Your task to perform on an android device: turn off picture-in-picture Image 0: 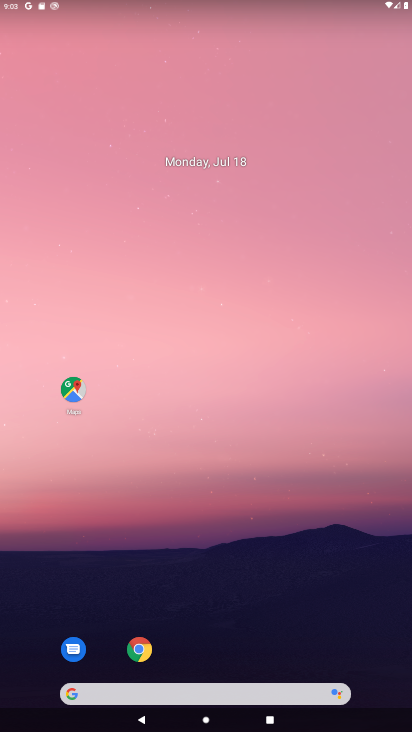
Step 0: click (135, 643)
Your task to perform on an android device: turn off picture-in-picture Image 1: 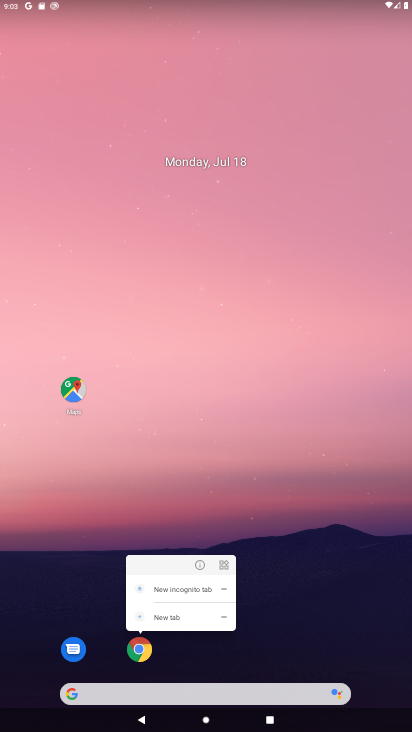
Step 1: click (202, 564)
Your task to perform on an android device: turn off picture-in-picture Image 2: 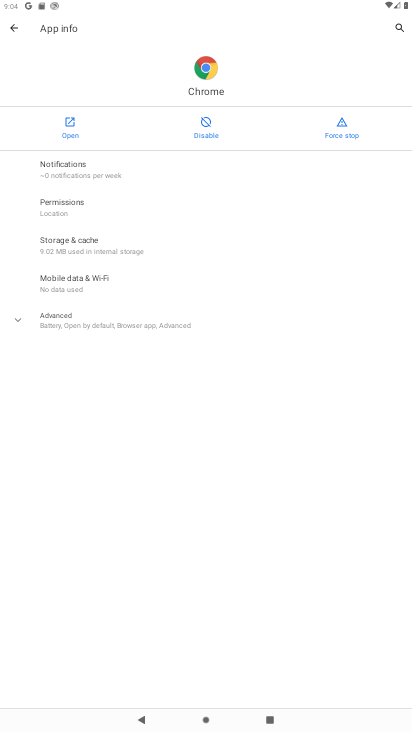
Step 2: click (89, 322)
Your task to perform on an android device: turn off picture-in-picture Image 3: 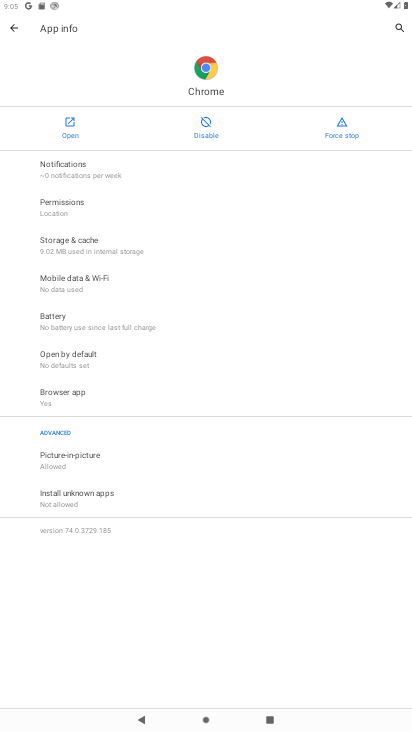
Step 3: click (71, 460)
Your task to perform on an android device: turn off picture-in-picture Image 4: 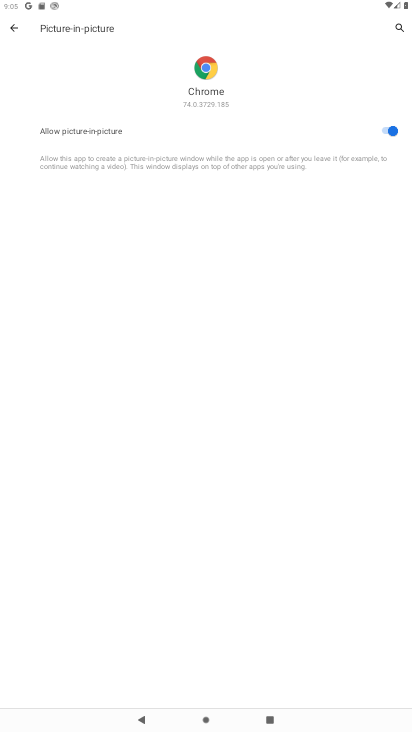
Step 4: click (387, 127)
Your task to perform on an android device: turn off picture-in-picture Image 5: 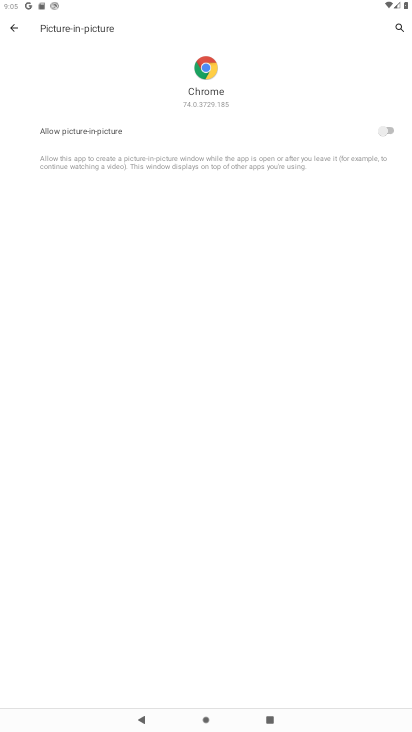
Step 5: task complete